Your task to perform on an android device: open app "Indeed Job Search" (install if not already installed) and enter user name: "quixotic@inbox.com" and password: "microphones" Image 0: 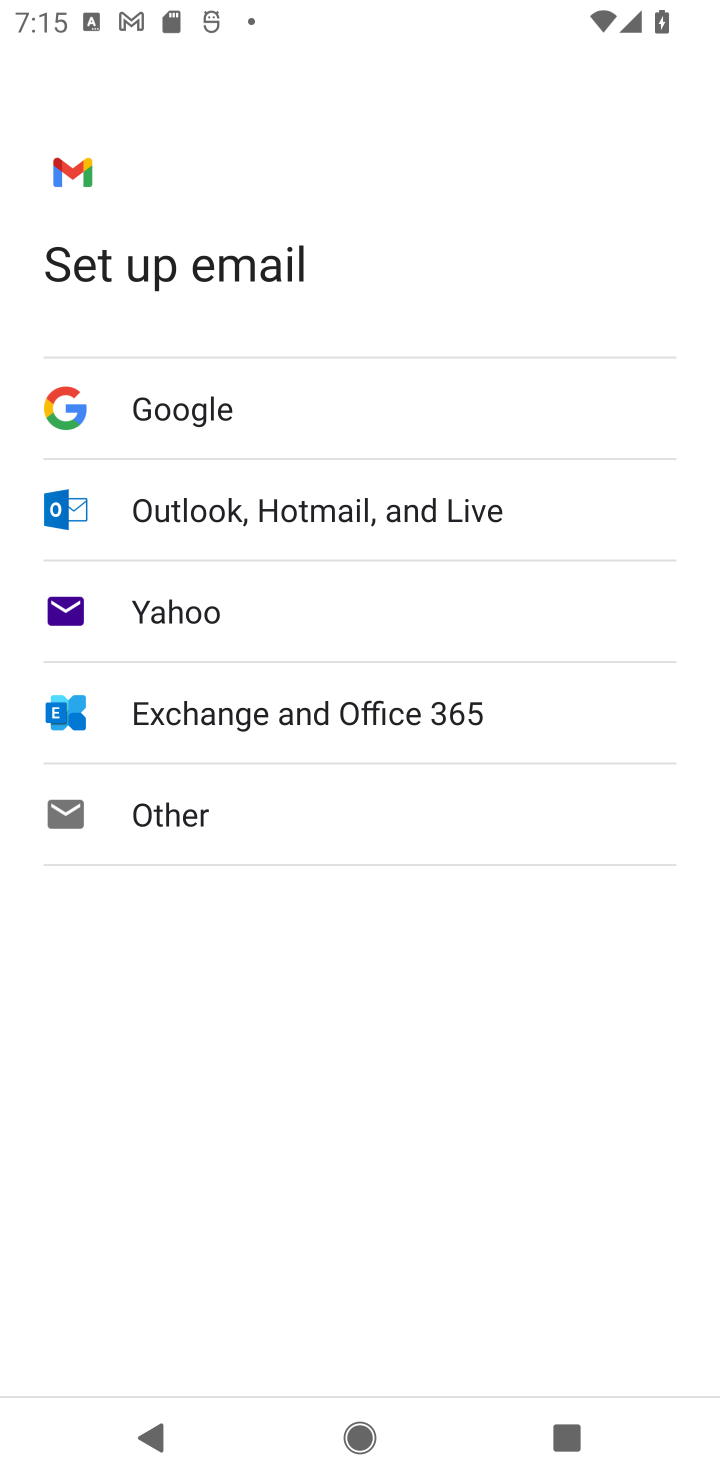
Step 0: press home button
Your task to perform on an android device: open app "Indeed Job Search" (install if not already installed) and enter user name: "quixotic@inbox.com" and password: "microphones" Image 1: 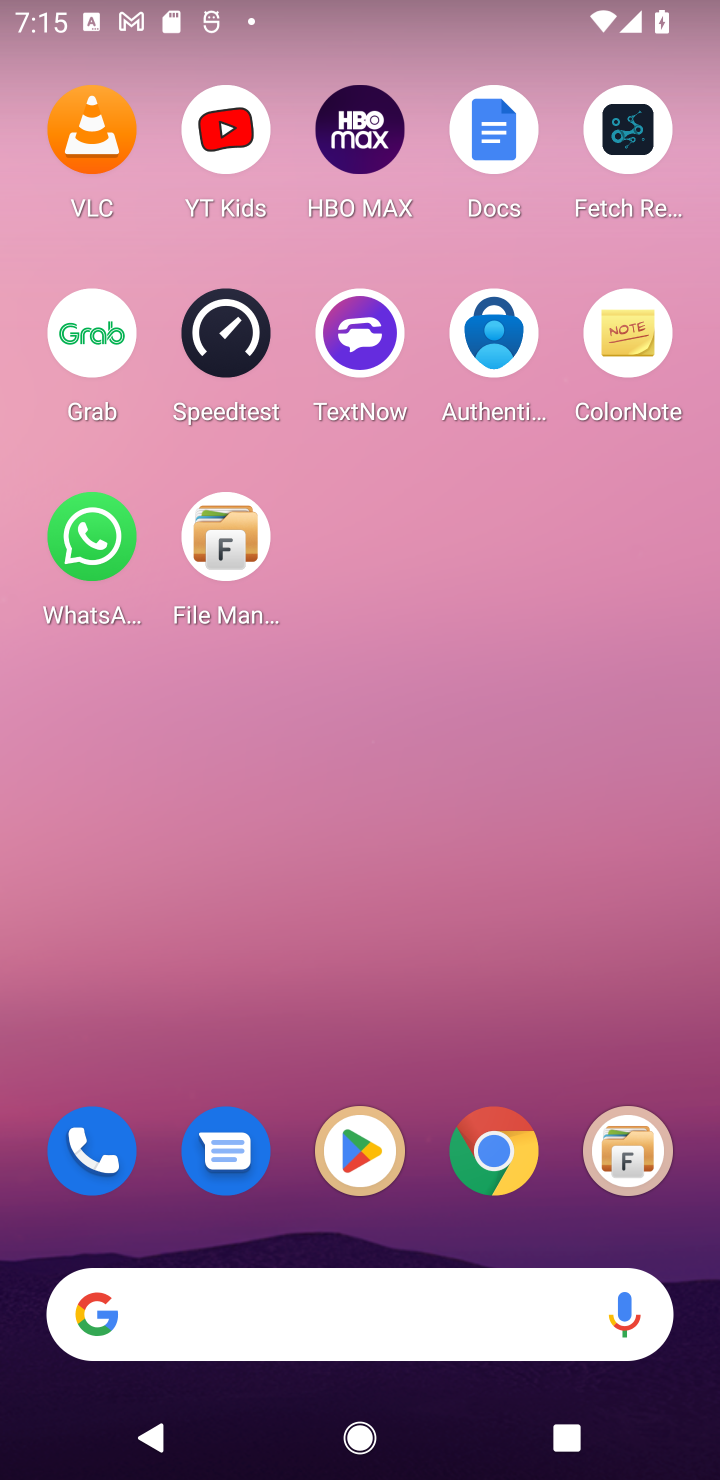
Step 1: click (349, 1158)
Your task to perform on an android device: open app "Indeed Job Search" (install if not already installed) and enter user name: "quixotic@inbox.com" and password: "microphones" Image 2: 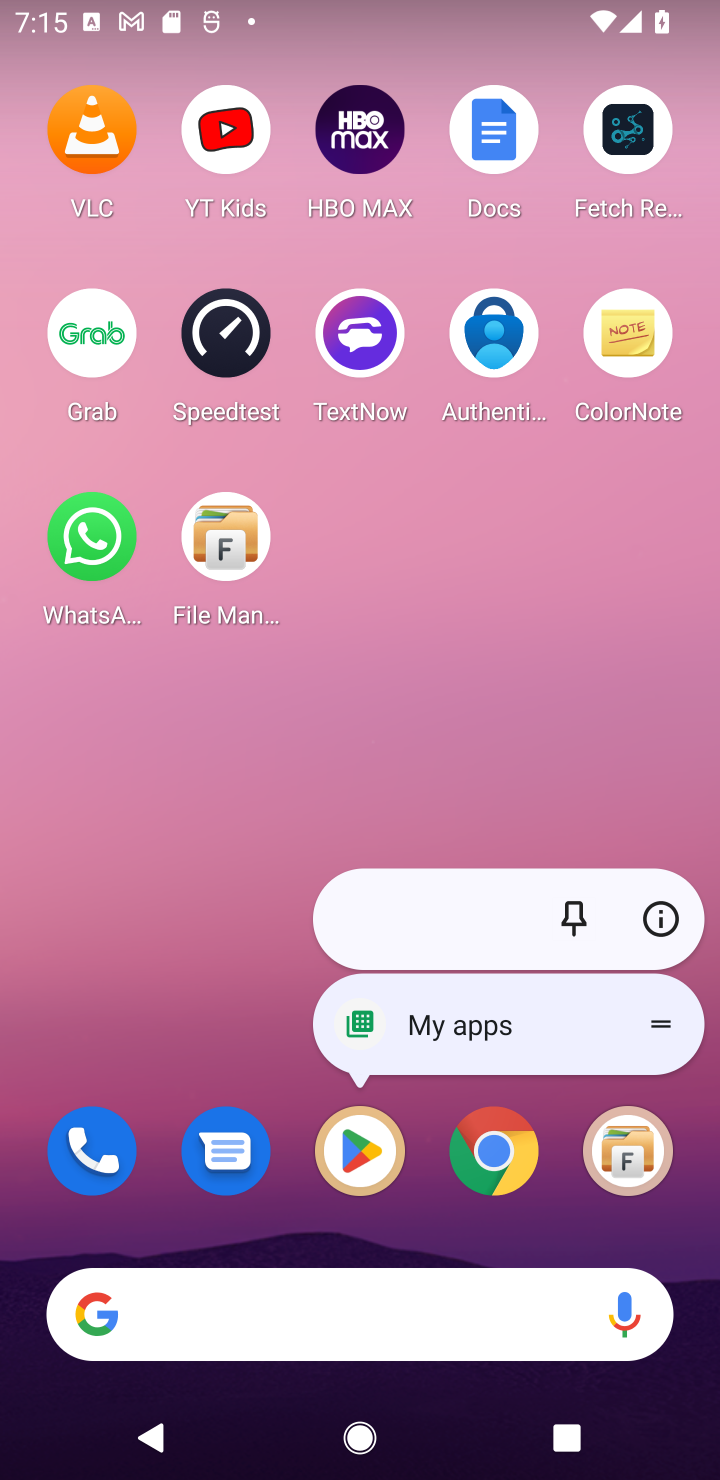
Step 2: click (349, 1175)
Your task to perform on an android device: open app "Indeed Job Search" (install if not already installed) and enter user name: "quixotic@inbox.com" and password: "microphones" Image 3: 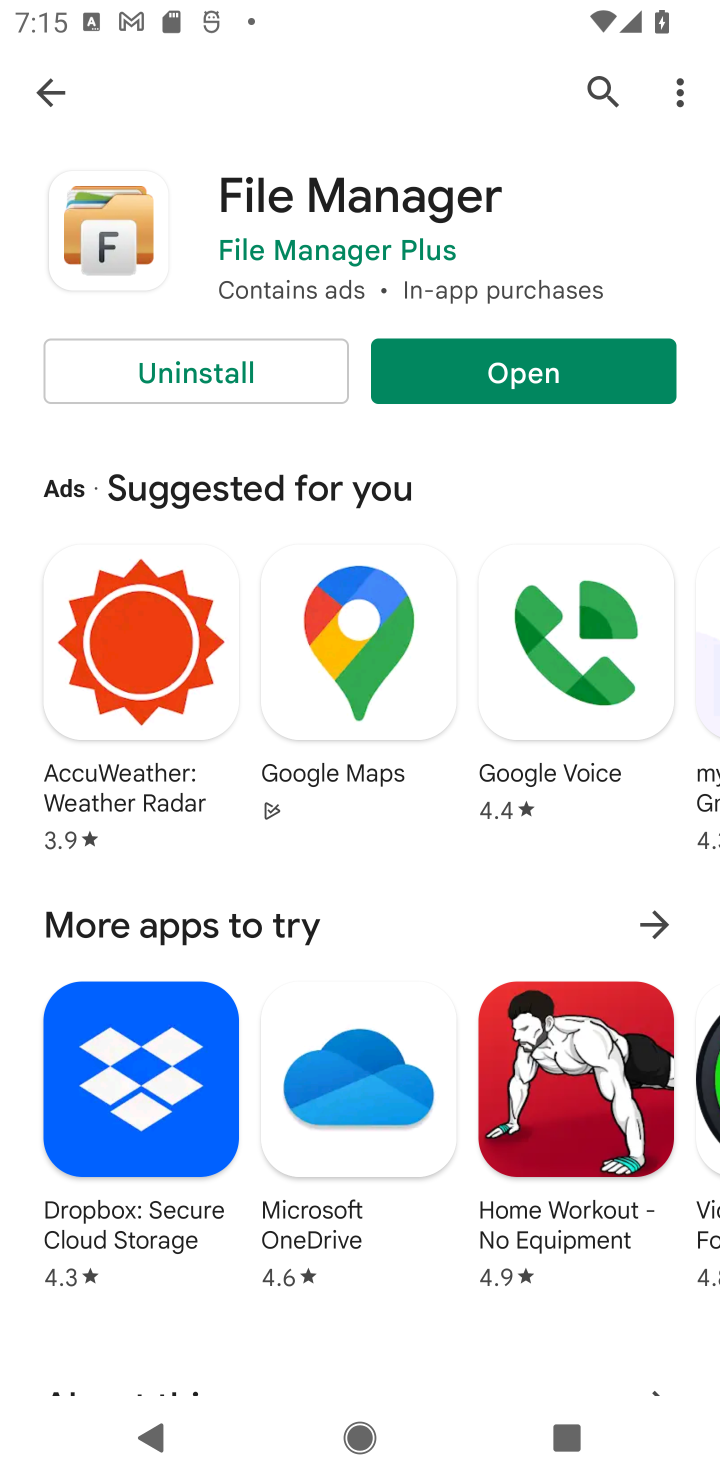
Step 3: click (584, 101)
Your task to perform on an android device: open app "Indeed Job Search" (install if not already installed) and enter user name: "quixotic@inbox.com" and password: "microphones" Image 4: 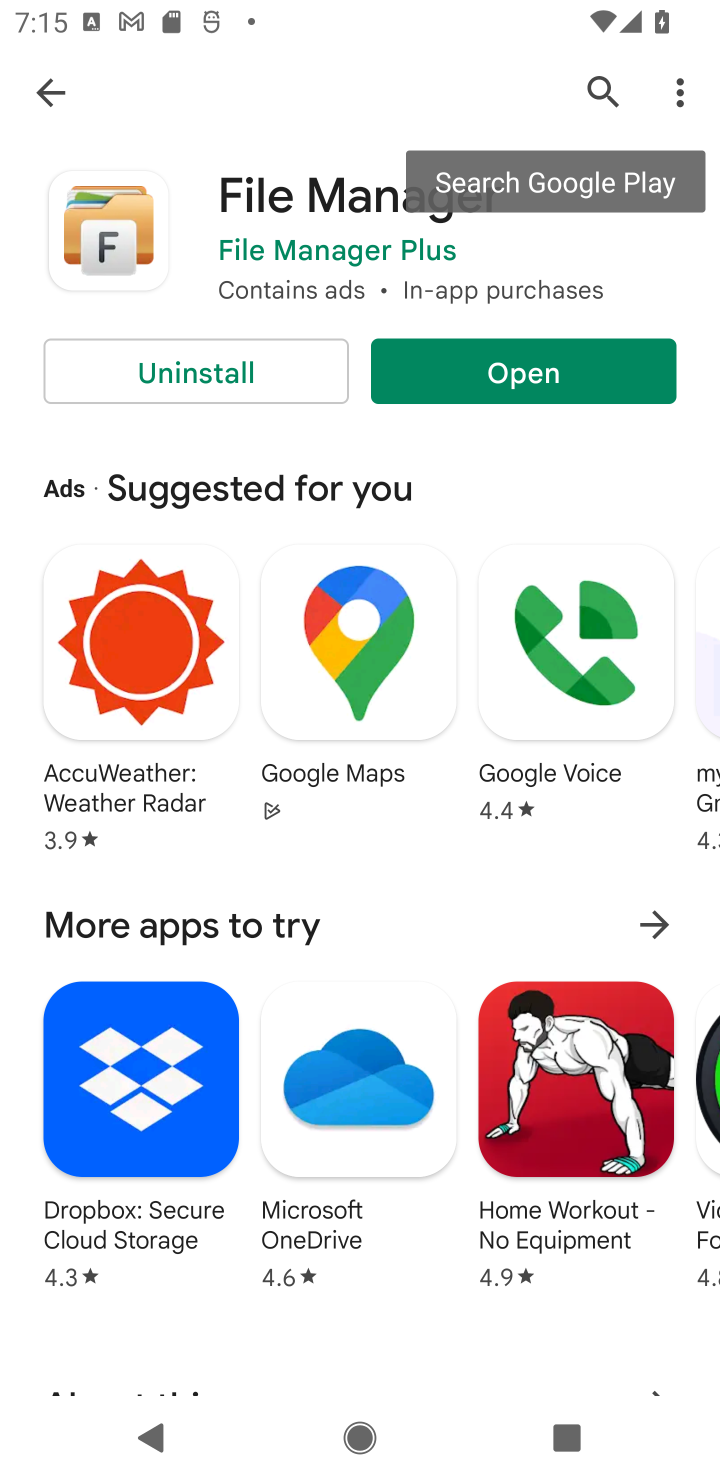
Step 4: click (591, 91)
Your task to perform on an android device: open app "Indeed Job Search" (install if not already installed) and enter user name: "quixotic@inbox.com" and password: "microphones" Image 5: 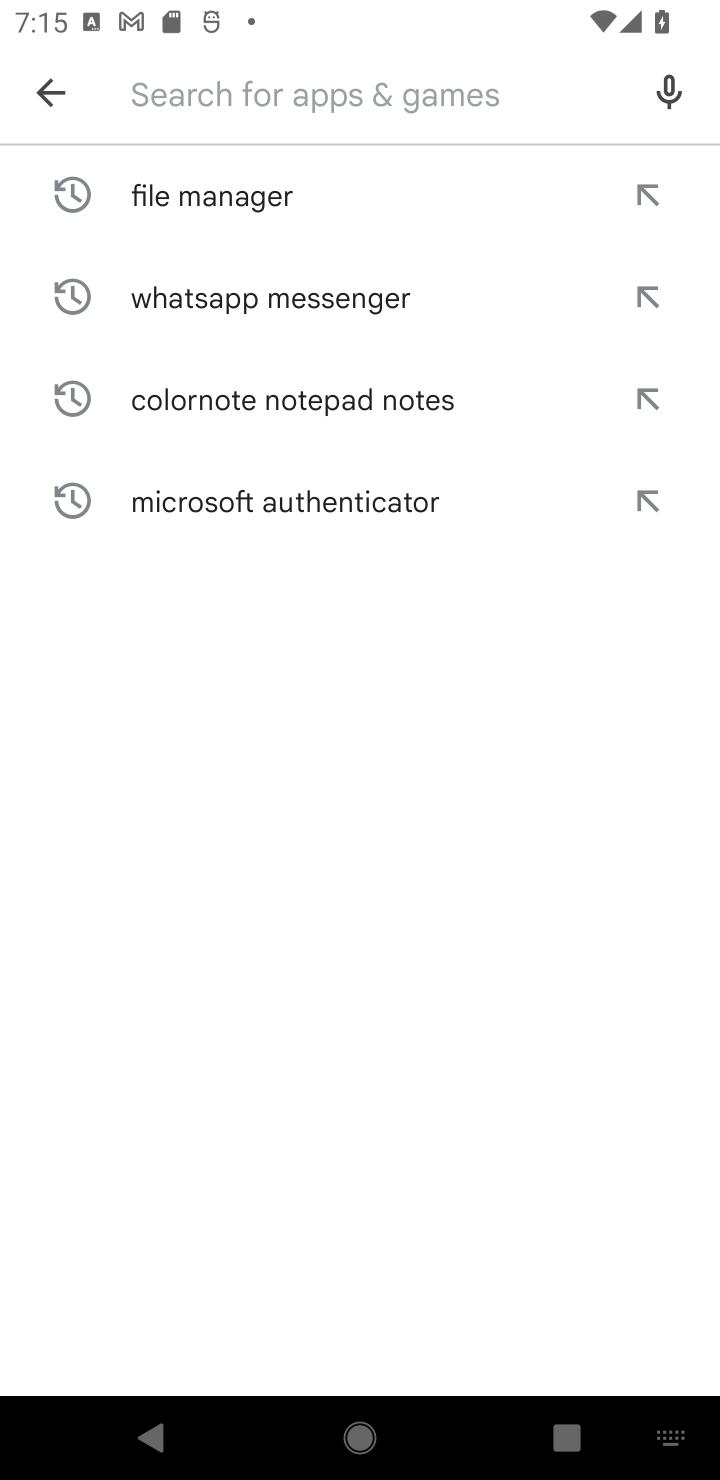
Step 5: type "Indeed Job Search"
Your task to perform on an android device: open app "Indeed Job Search" (install if not already installed) and enter user name: "quixotic@inbox.com" and password: "microphones" Image 6: 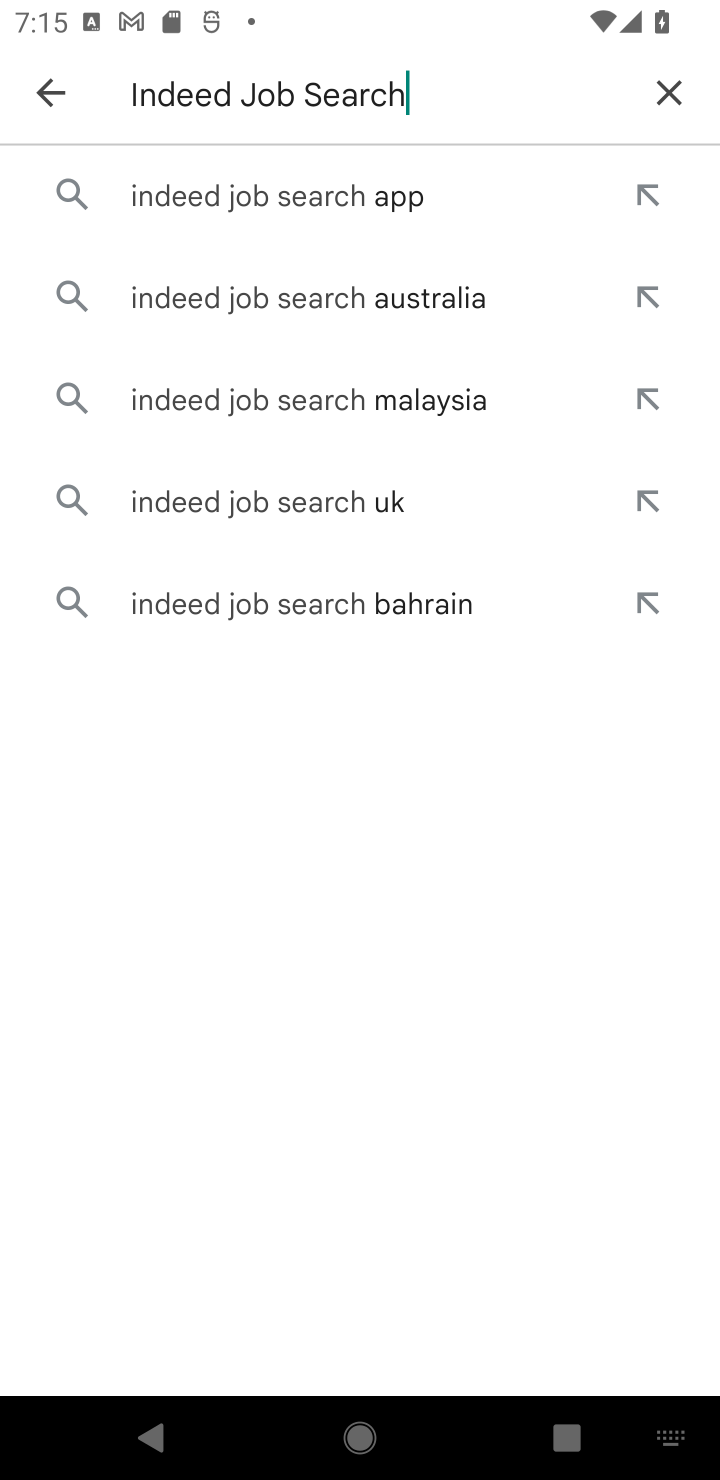
Step 6: click (316, 202)
Your task to perform on an android device: open app "Indeed Job Search" (install if not already installed) and enter user name: "quixotic@inbox.com" and password: "microphones" Image 7: 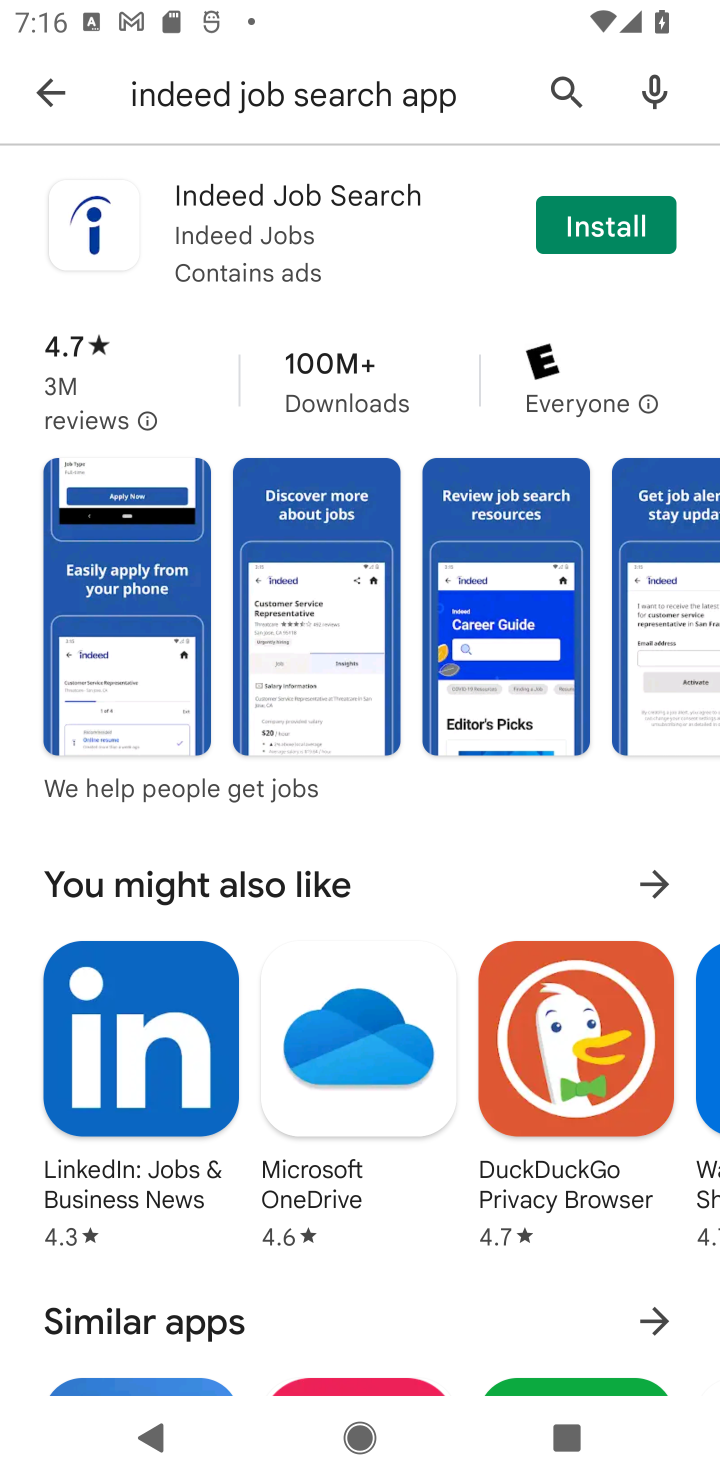
Step 7: click (628, 220)
Your task to perform on an android device: open app "Indeed Job Search" (install if not already installed) and enter user name: "quixotic@inbox.com" and password: "microphones" Image 8: 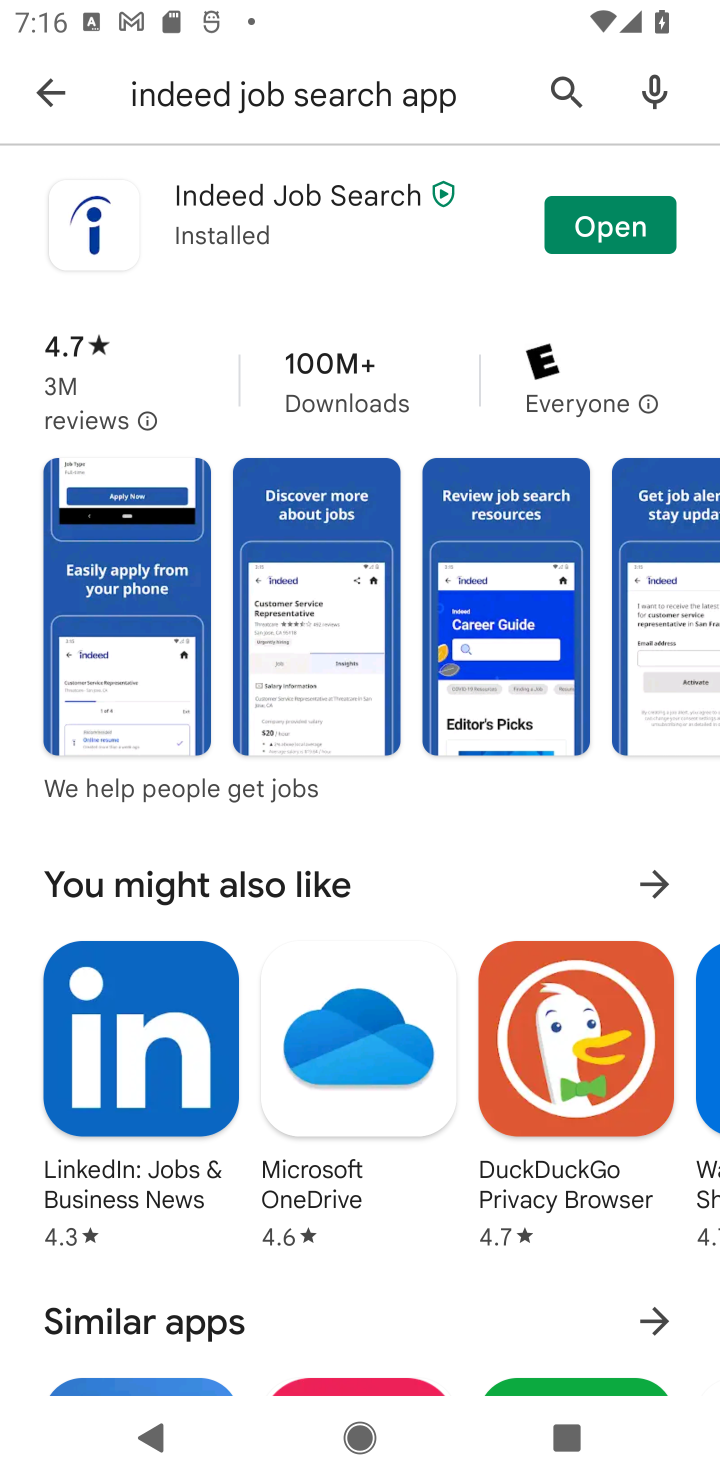
Step 8: click (608, 212)
Your task to perform on an android device: open app "Indeed Job Search" (install if not already installed) and enter user name: "quixotic@inbox.com" and password: "microphones" Image 9: 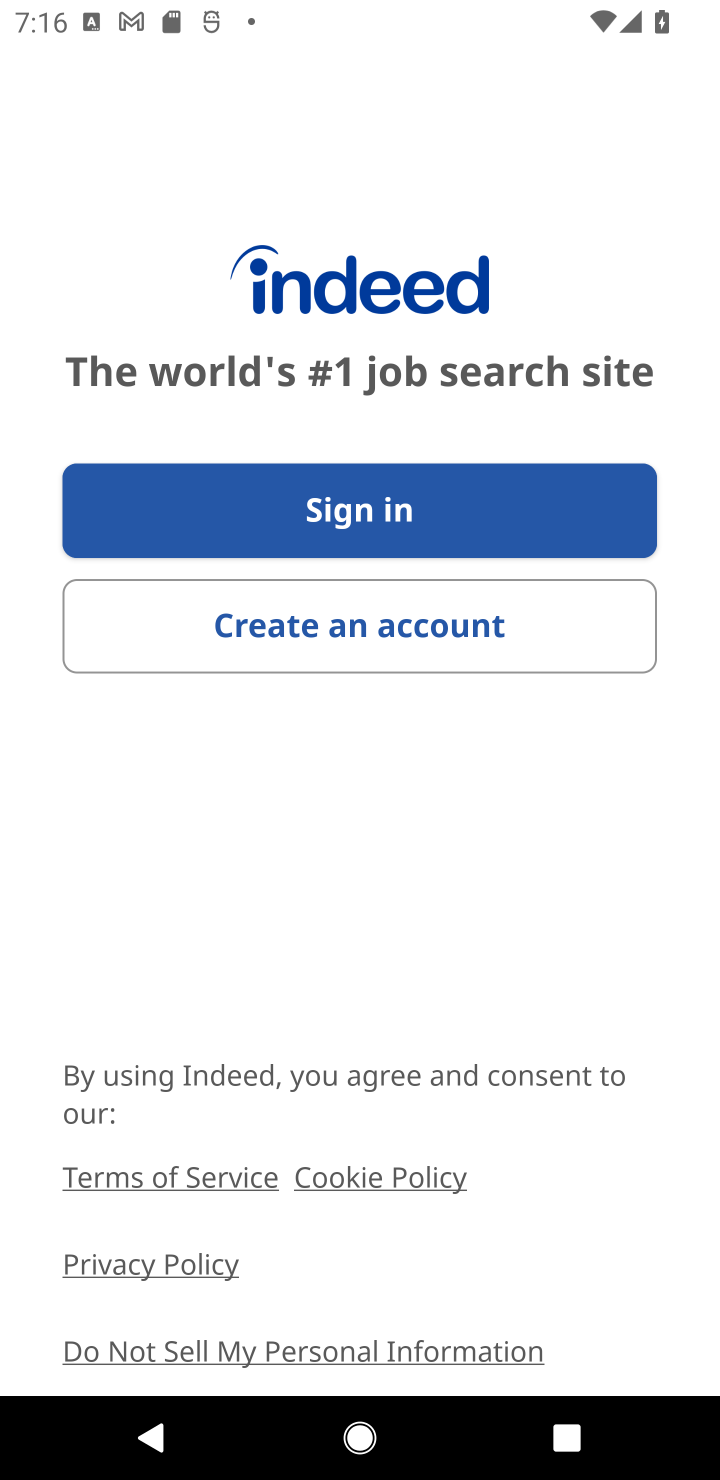
Step 9: click (392, 504)
Your task to perform on an android device: open app "Indeed Job Search" (install if not already installed) and enter user name: "quixotic@inbox.com" and password: "microphones" Image 10: 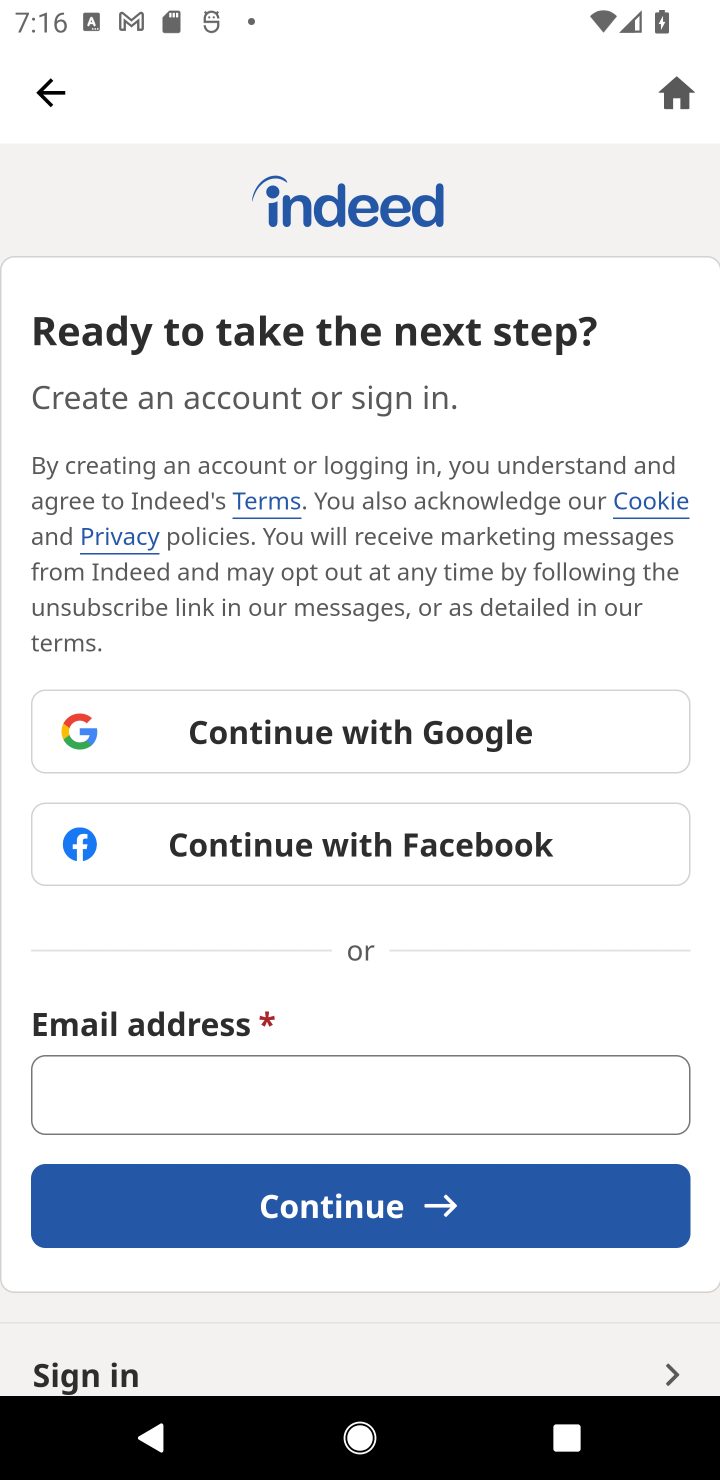
Step 10: click (211, 1082)
Your task to perform on an android device: open app "Indeed Job Search" (install if not already installed) and enter user name: "quixotic@inbox.com" and password: "microphones" Image 11: 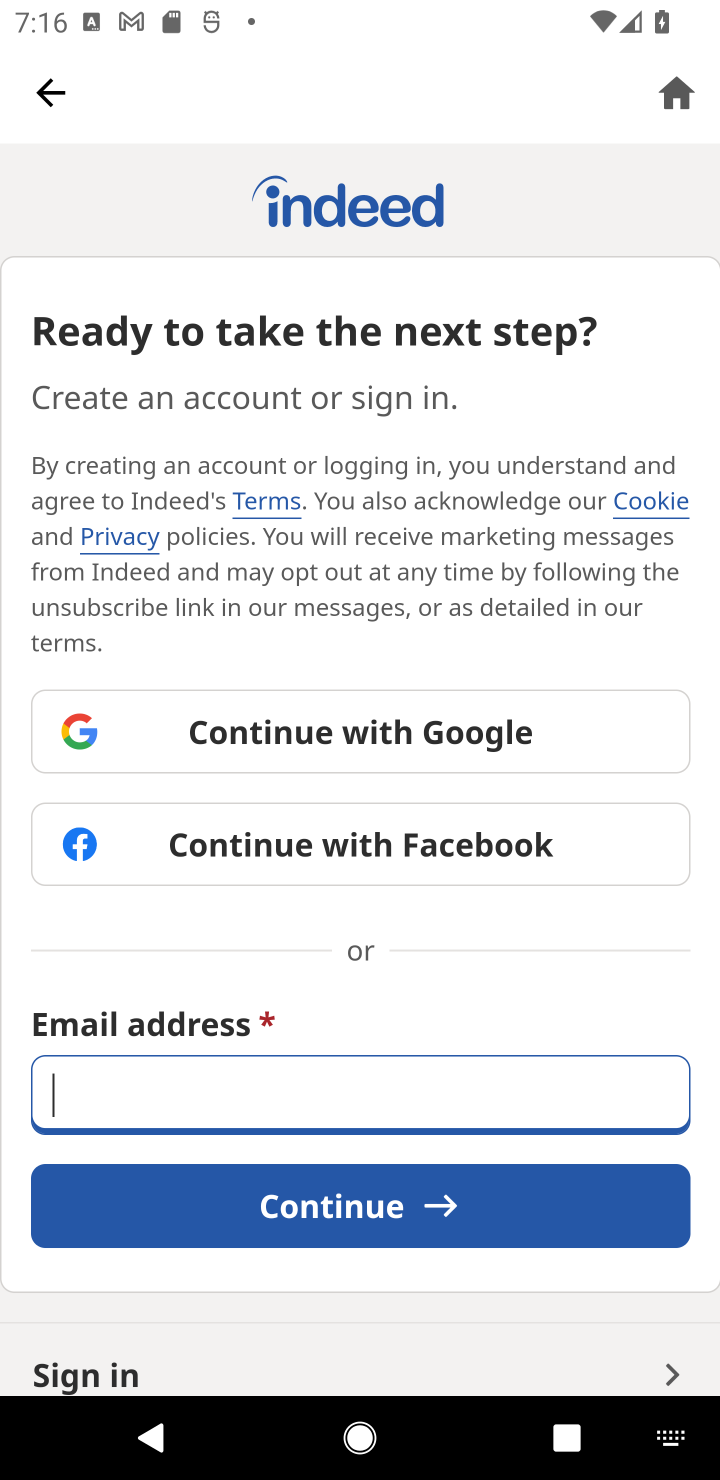
Step 11: type "quixotic@inbox.com"
Your task to perform on an android device: open app "Indeed Job Search" (install if not already installed) and enter user name: "quixotic@inbox.com" and password: "microphones" Image 12: 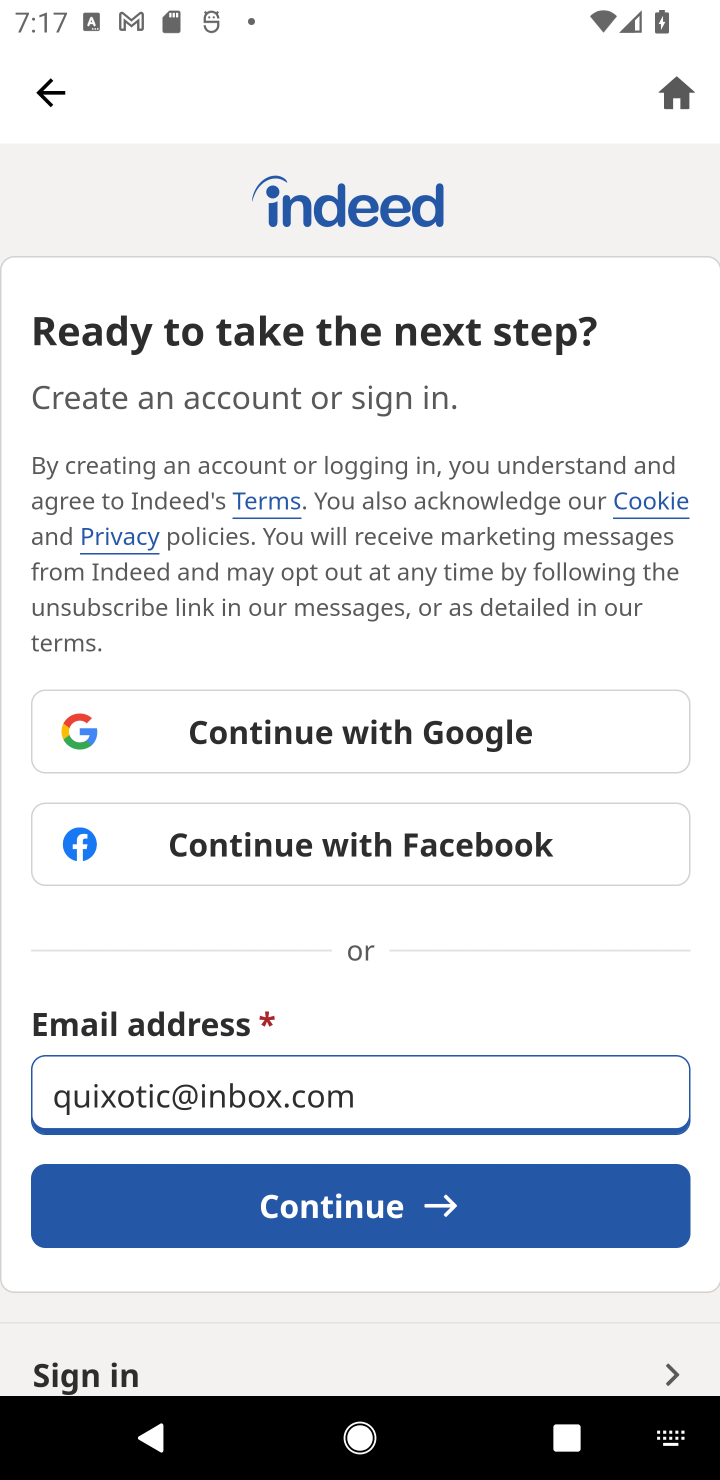
Step 12: click (420, 1222)
Your task to perform on an android device: open app "Indeed Job Search" (install if not already installed) and enter user name: "quixotic@inbox.com" and password: "microphones" Image 13: 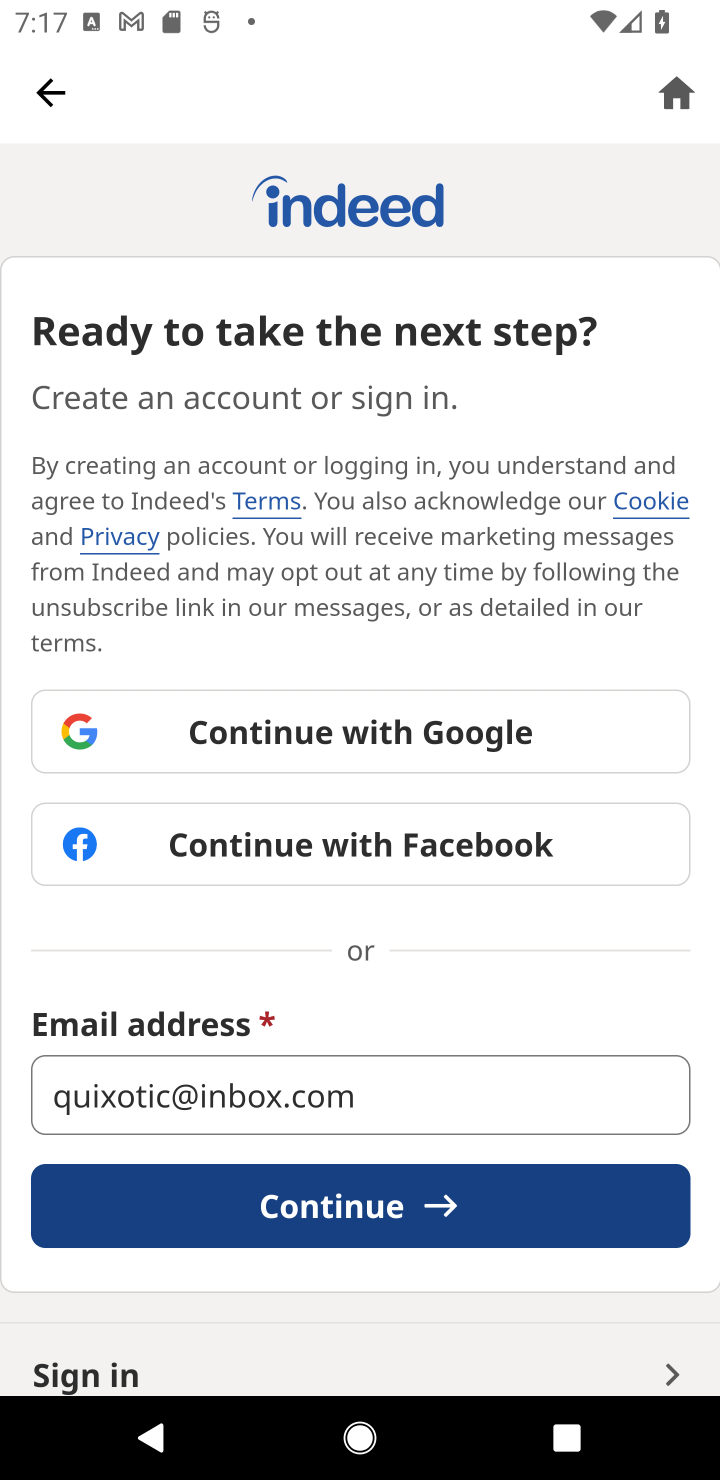
Step 13: click (420, 1214)
Your task to perform on an android device: open app "Indeed Job Search" (install if not already installed) and enter user name: "quixotic@inbox.com" and password: "microphones" Image 14: 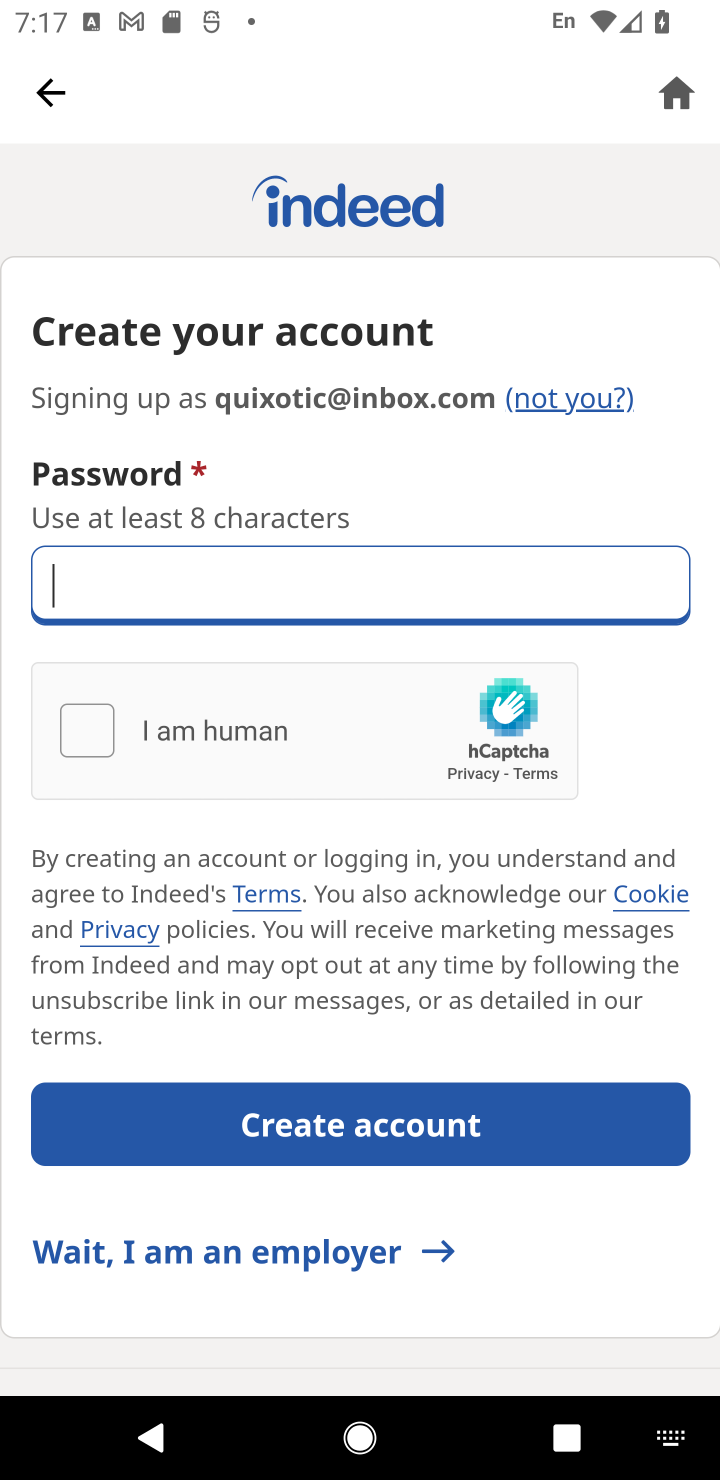
Step 14: type "microphones"
Your task to perform on an android device: open app "Indeed Job Search" (install if not already installed) and enter user name: "quixotic@inbox.com" and password: "microphones" Image 15: 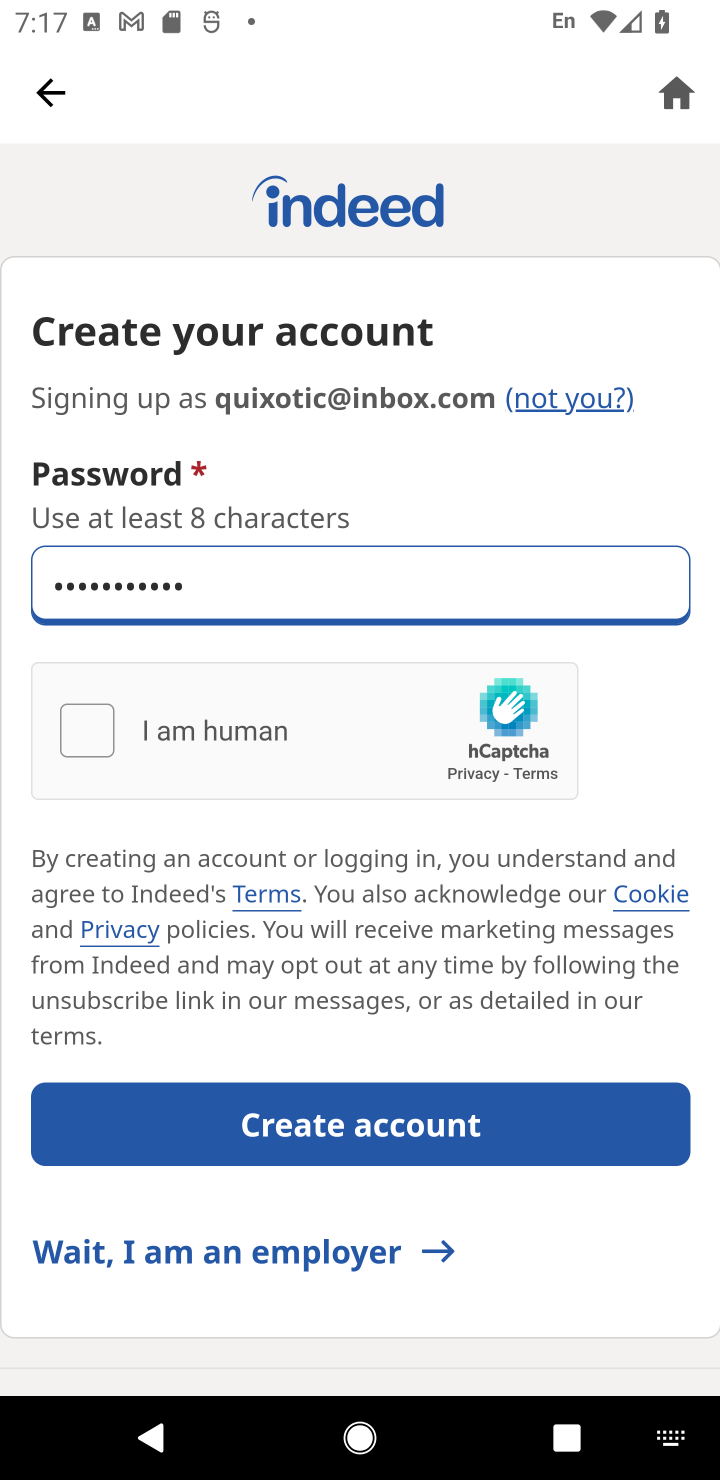
Step 15: task complete